Your task to perform on an android device: Is it going to rain today? Image 0: 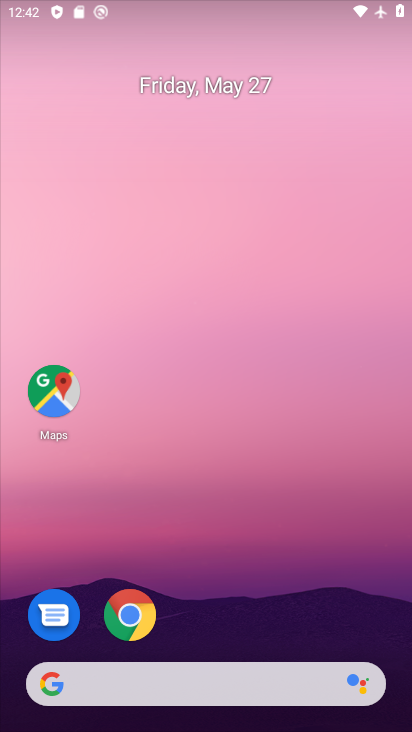
Step 0: press home button
Your task to perform on an android device: Is it going to rain today? Image 1: 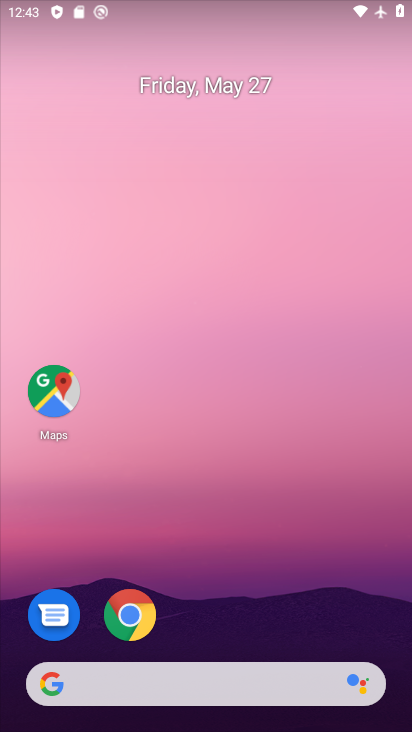
Step 1: click (45, 695)
Your task to perform on an android device: Is it going to rain today? Image 2: 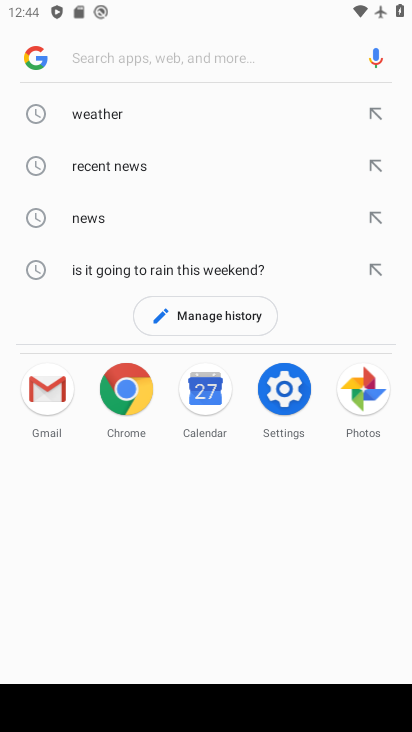
Step 2: type "Is it going to rain today?"
Your task to perform on an android device: Is it going to rain today? Image 3: 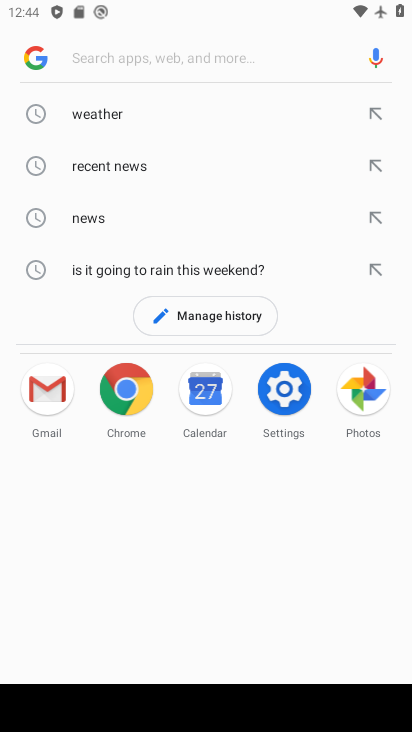
Step 3: click (189, 44)
Your task to perform on an android device: Is it going to rain today? Image 4: 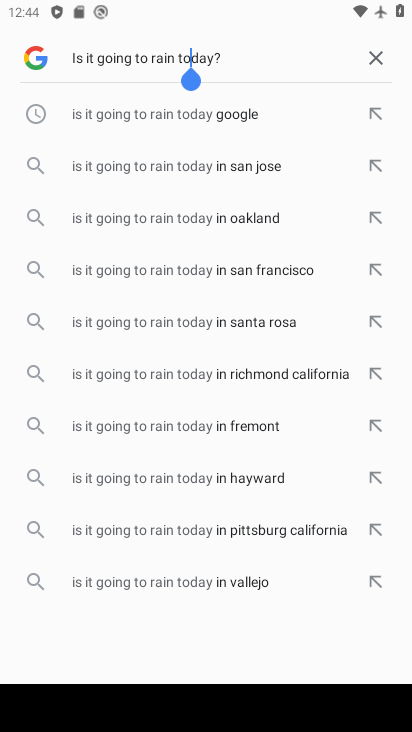
Step 4: click (184, 119)
Your task to perform on an android device: Is it going to rain today? Image 5: 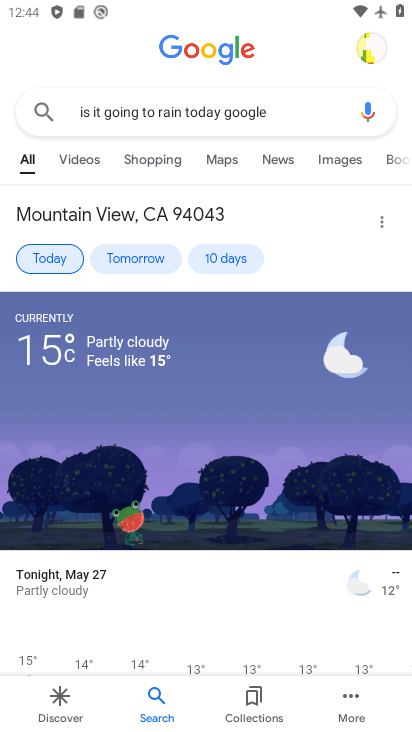
Step 5: task complete